Your task to perform on an android device: Open ESPN.com Image 0: 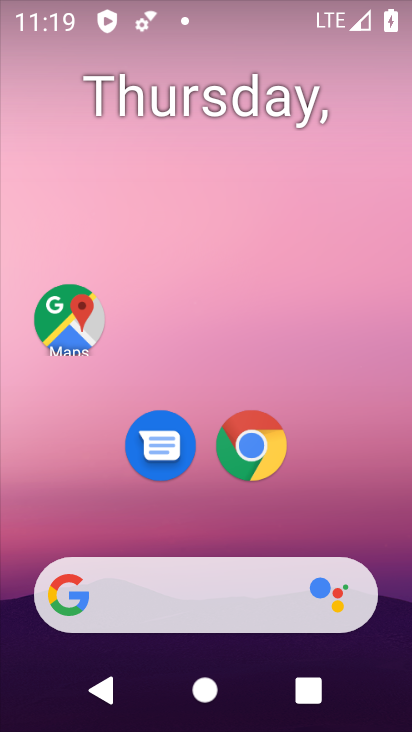
Step 0: click (244, 458)
Your task to perform on an android device: Open ESPN.com Image 1: 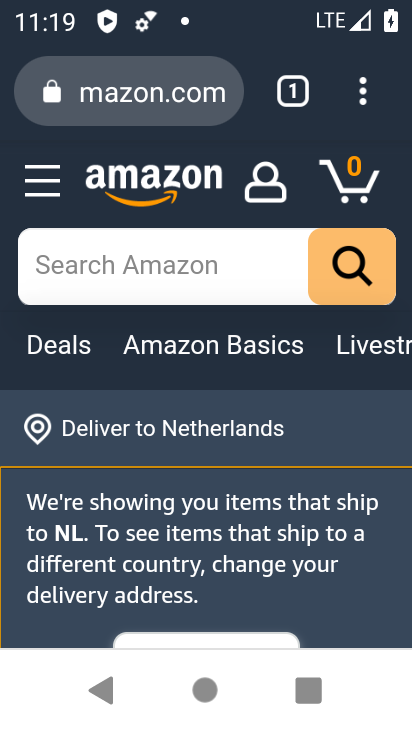
Step 1: drag from (392, 92) to (346, 165)
Your task to perform on an android device: Open ESPN.com Image 2: 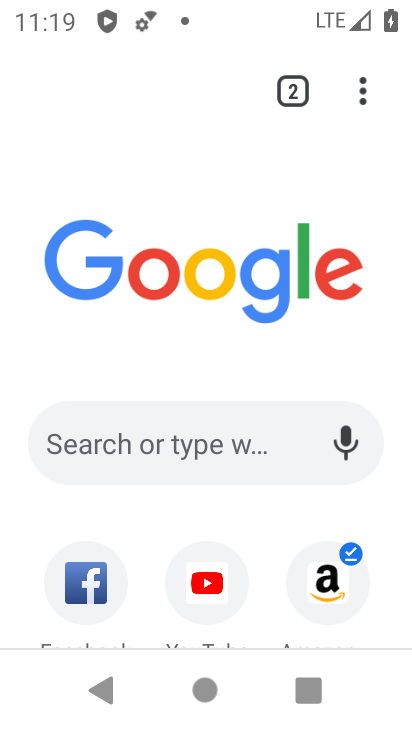
Step 2: drag from (157, 460) to (206, 237)
Your task to perform on an android device: Open ESPN.com Image 3: 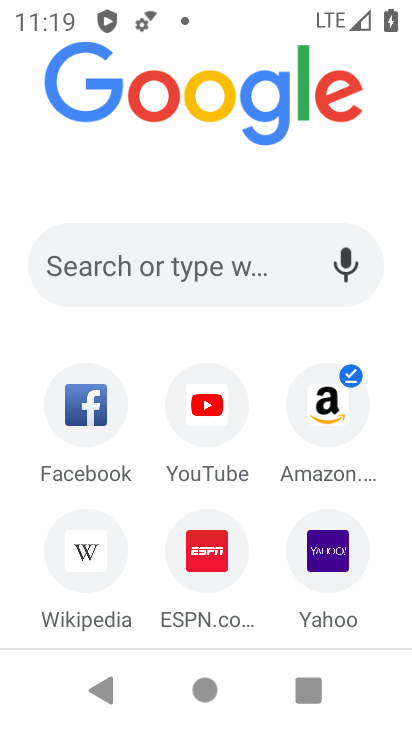
Step 3: click (200, 556)
Your task to perform on an android device: Open ESPN.com Image 4: 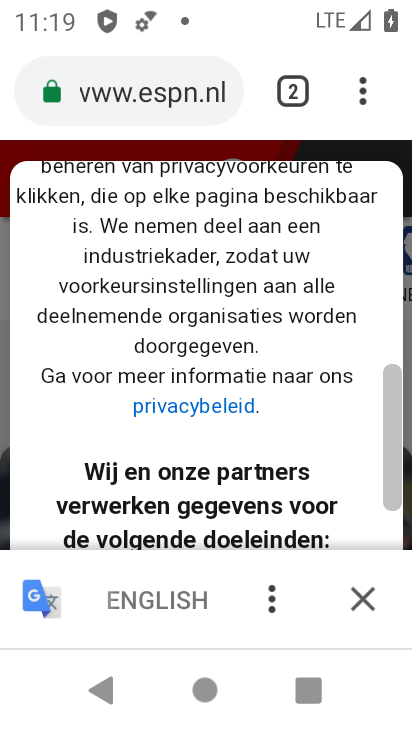
Step 4: click (355, 604)
Your task to perform on an android device: Open ESPN.com Image 5: 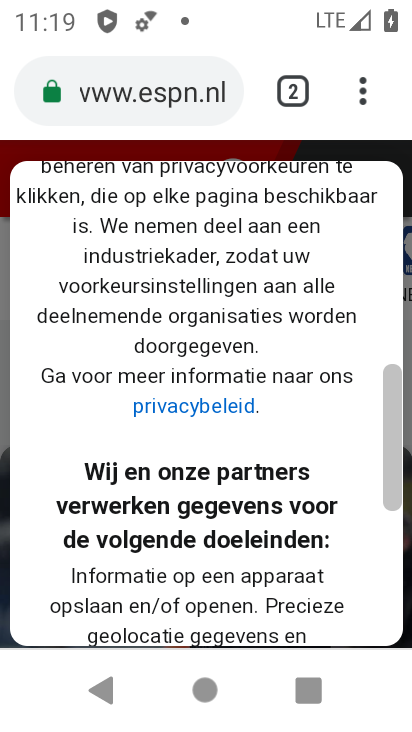
Step 5: task complete